Your task to perform on an android device: star an email in the gmail app Image 0: 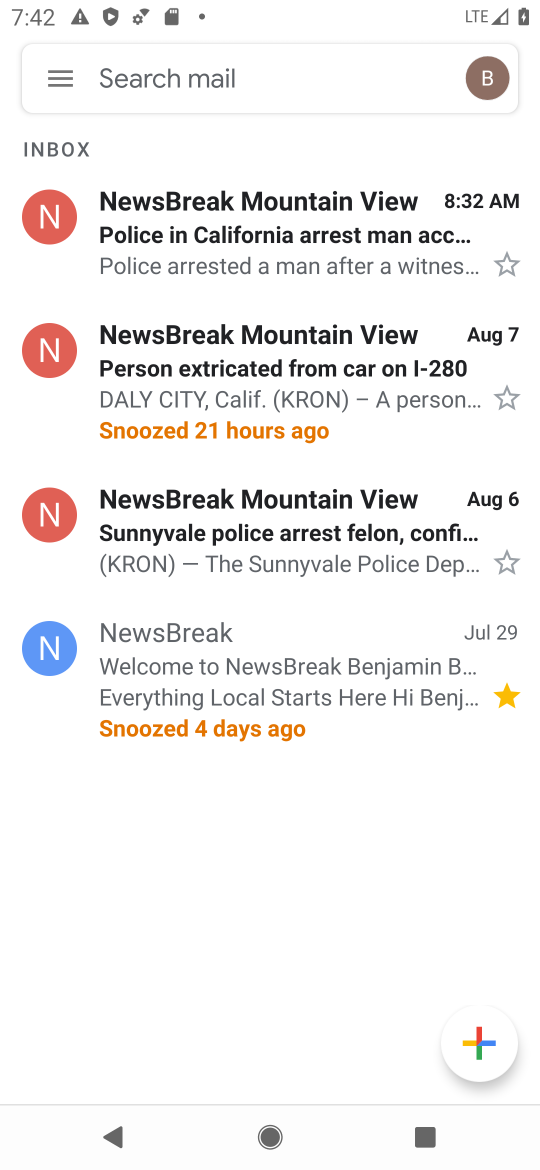
Step 0: drag from (285, 974) to (240, 169)
Your task to perform on an android device: star an email in the gmail app Image 1: 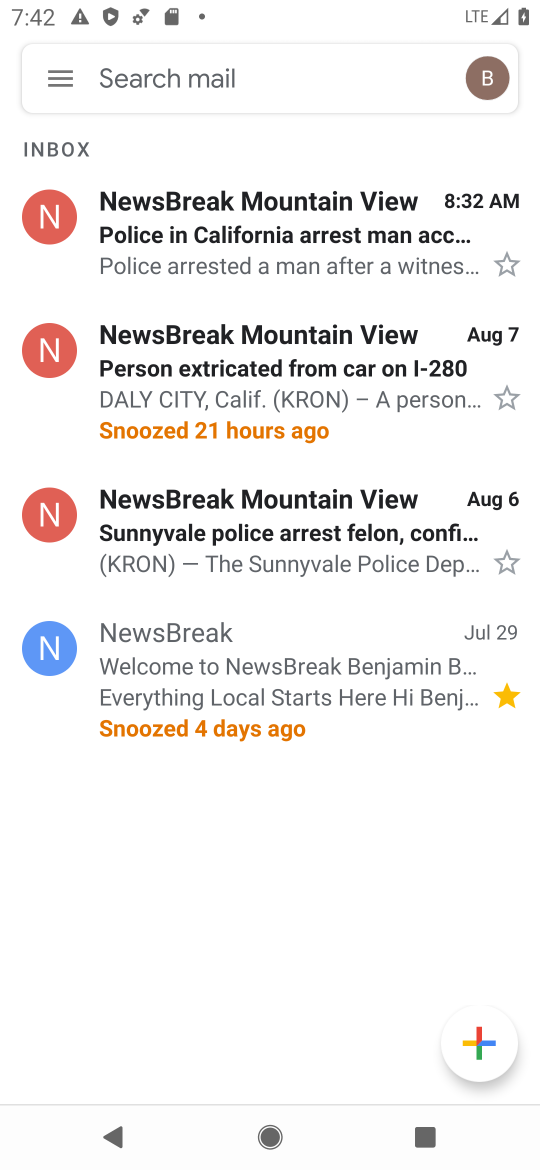
Step 1: click (65, 82)
Your task to perform on an android device: star an email in the gmail app Image 2: 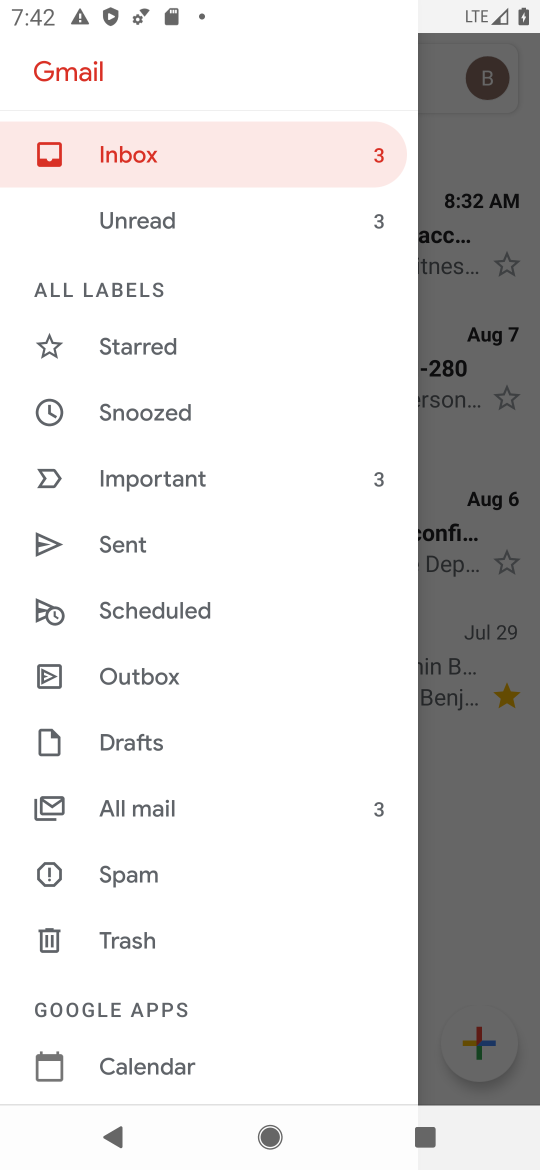
Step 2: drag from (203, 808) to (201, 444)
Your task to perform on an android device: star an email in the gmail app Image 3: 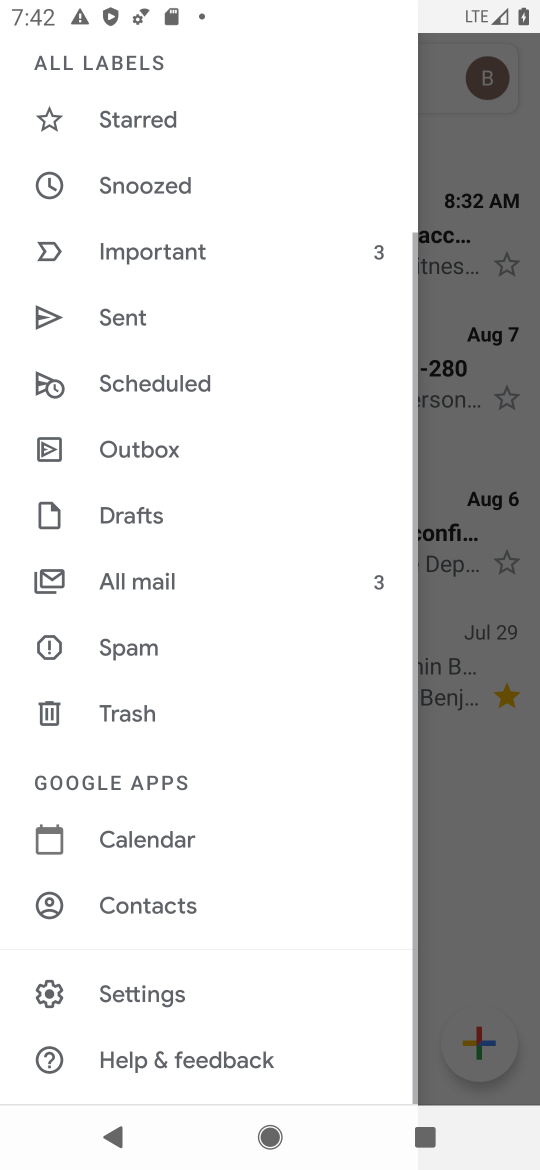
Step 3: drag from (171, 423) to (273, 1069)
Your task to perform on an android device: star an email in the gmail app Image 4: 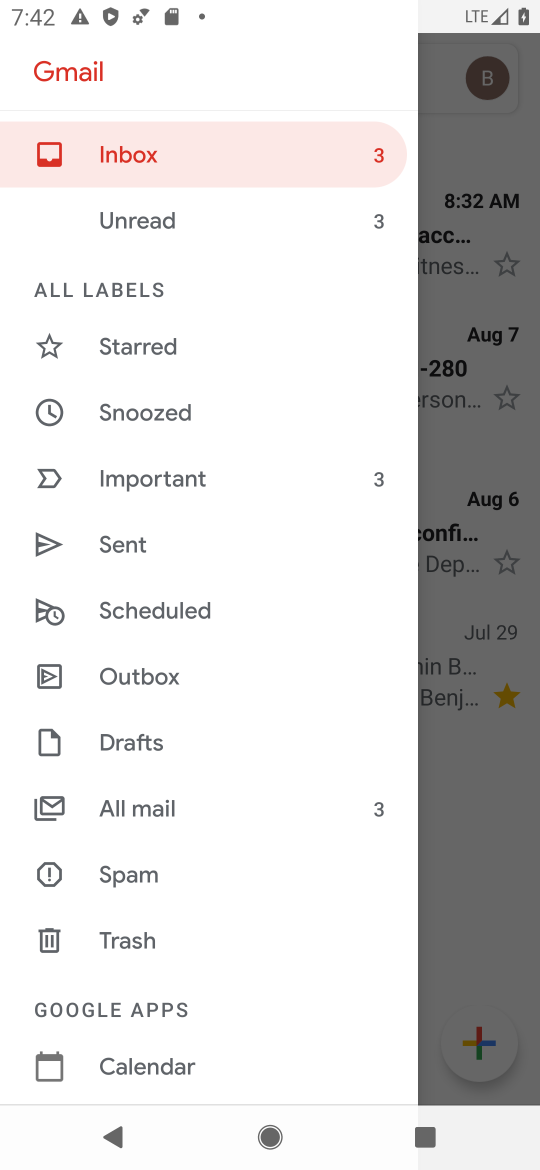
Step 4: click (505, 921)
Your task to perform on an android device: star an email in the gmail app Image 5: 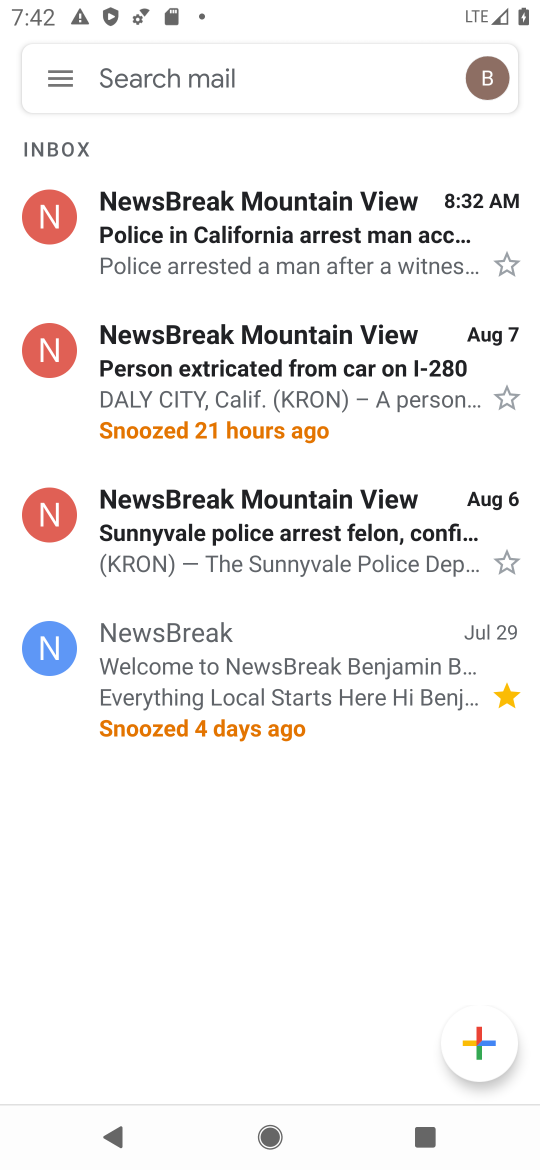
Step 5: click (251, 267)
Your task to perform on an android device: star an email in the gmail app Image 6: 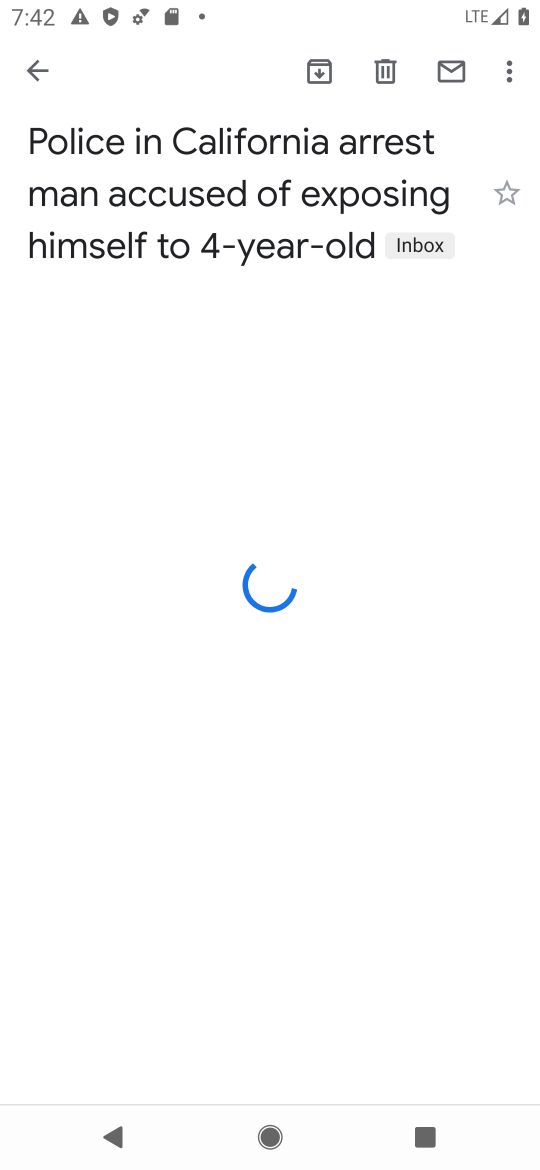
Step 6: click (492, 197)
Your task to perform on an android device: star an email in the gmail app Image 7: 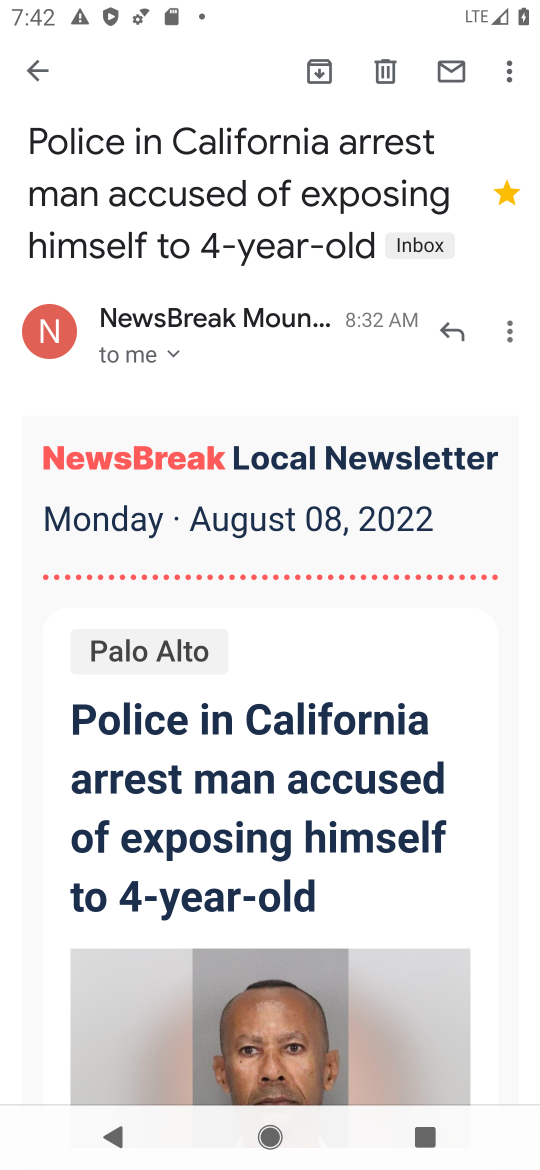
Step 7: task complete